Your task to perform on an android device: open app "Pluto TV - Live TV and Movies" (install if not already installed) and go to login screen Image 0: 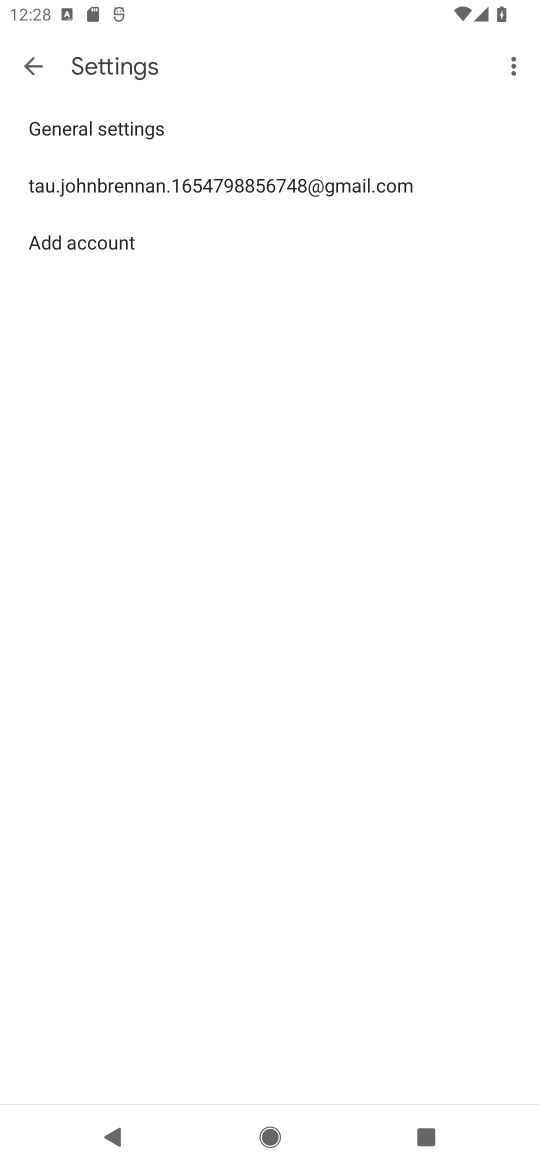
Step 0: press home button
Your task to perform on an android device: open app "Pluto TV - Live TV and Movies" (install if not already installed) and go to login screen Image 1: 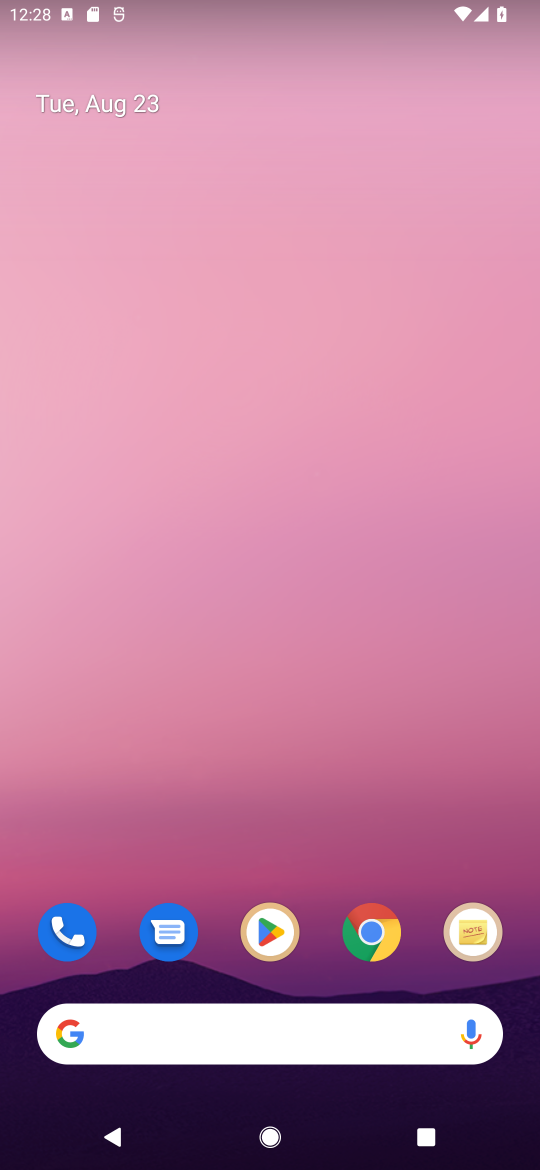
Step 1: click (270, 937)
Your task to perform on an android device: open app "Pluto TV - Live TV and Movies" (install if not already installed) and go to login screen Image 2: 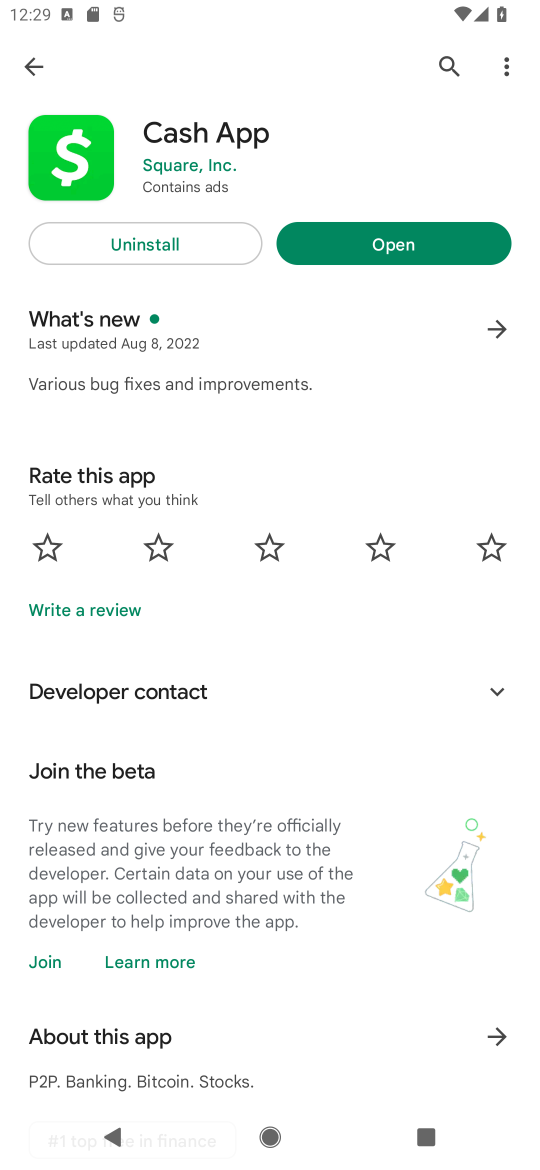
Step 2: click (436, 43)
Your task to perform on an android device: open app "Pluto TV - Live TV and Movies" (install if not already installed) and go to login screen Image 3: 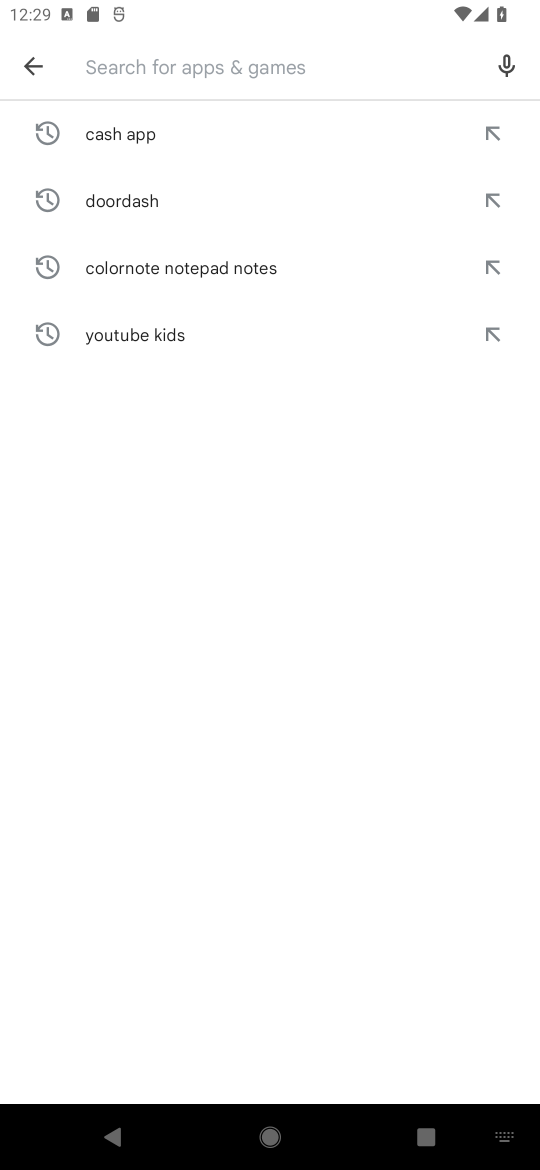
Step 3: click (157, 68)
Your task to perform on an android device: open app "Pluto TV - Live TV and Movies" (install if not already installed) and go to login screen Image 4: 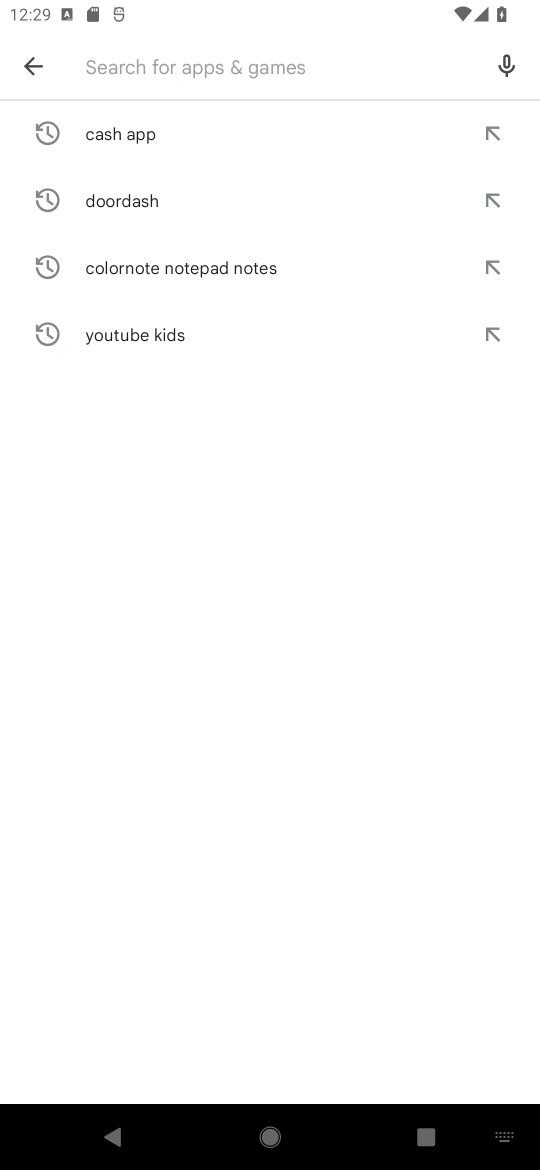
Step 4: type "Pluto TV"
Your task to perform on an android device: open app "Pluto TV - Live TV and Movies" (install if not already installed) and go to login screen Image 5: 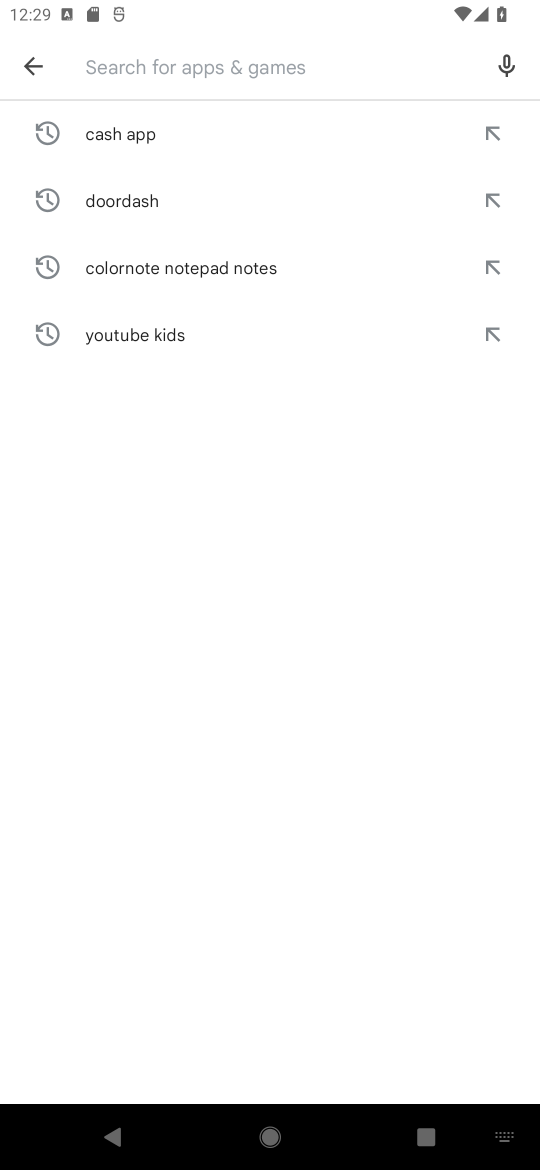
Step 5: click (395, 770)
Your task to perform on an android device: open app "Pluto TV - Live TV and Movies" (install if not already installed) and go to login screen Image 6: 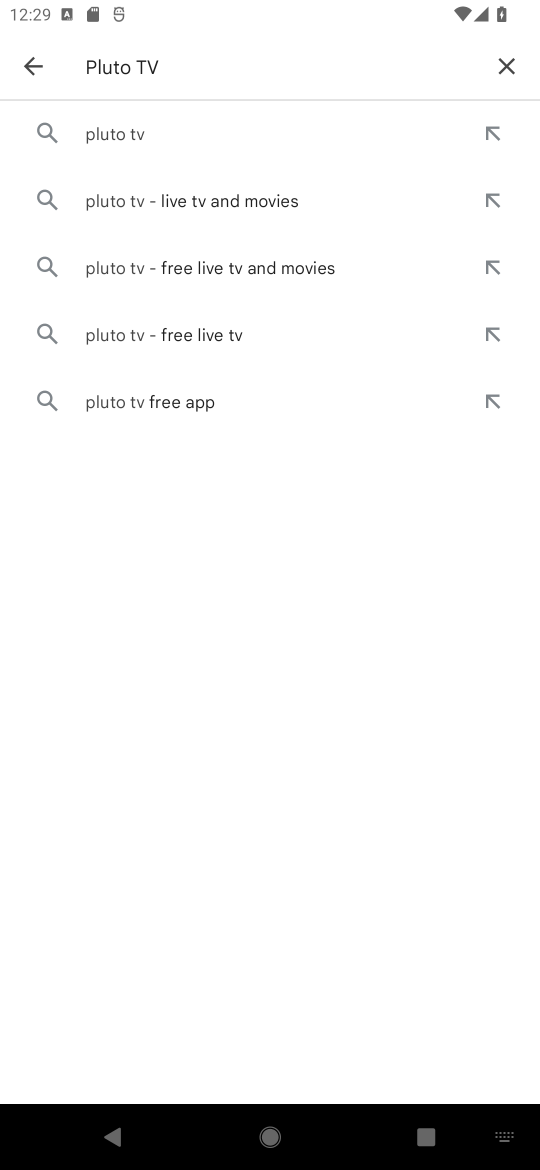
Step 6: click (119, 123)
Your task to perform on an android device: open app "Pluto TV - Live TV and Movies" (install if not already installed) and go to login screen Image 7: 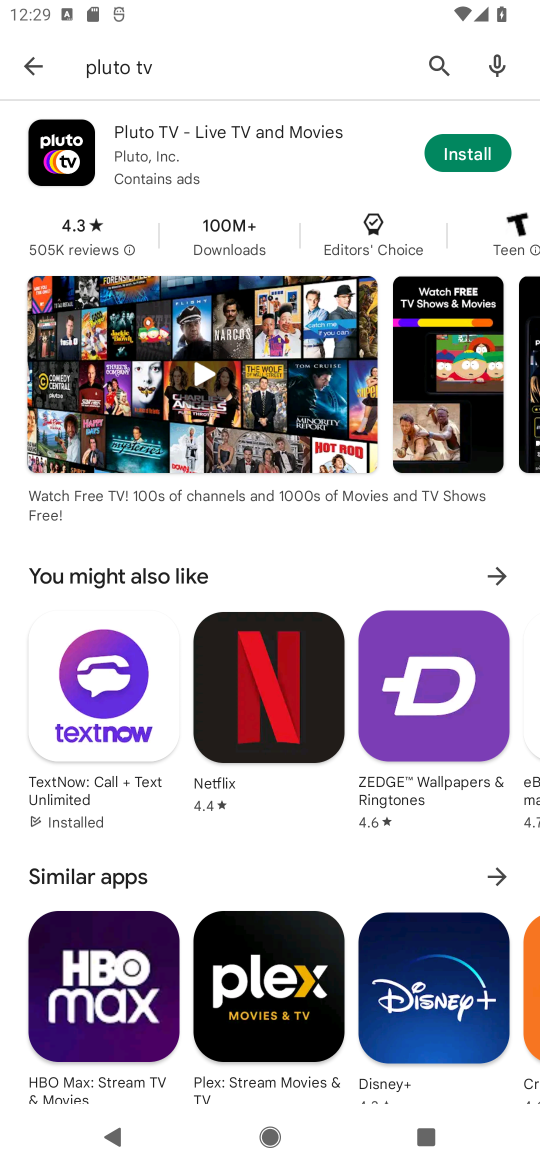
Step 7: click (472, 156)
Your task to perform on an android device: open app "Pluto TV - Live TV and Movies" (install if not already installed) and go to login screen Image 8: 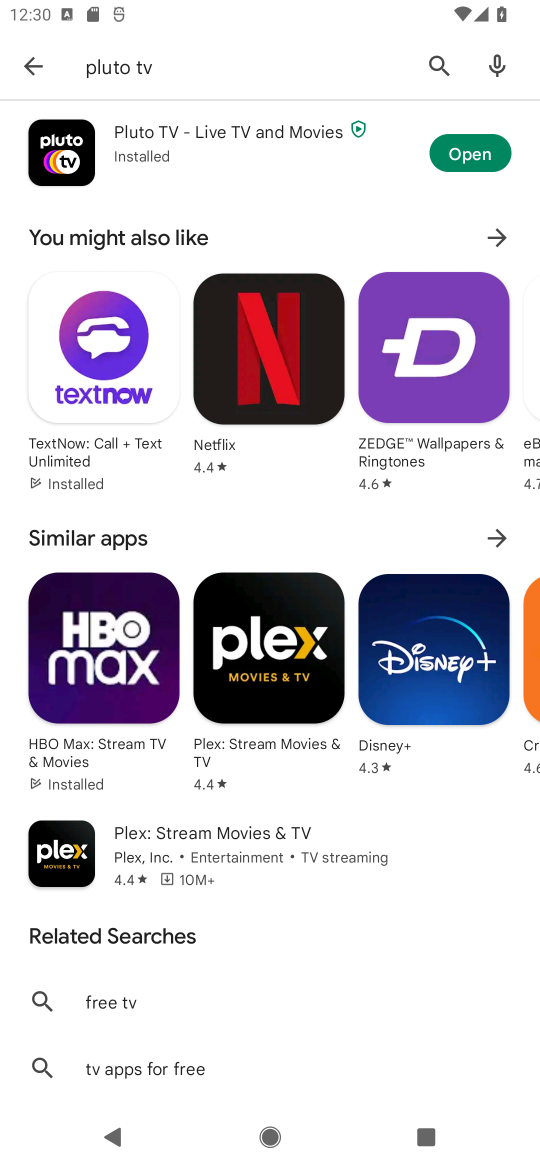
Step 8: click (489, 156)
Your task to perform on an android device: open app "Pluto TV - Live TV and Movies" (install if not already installed) and go to login screen Image 9: 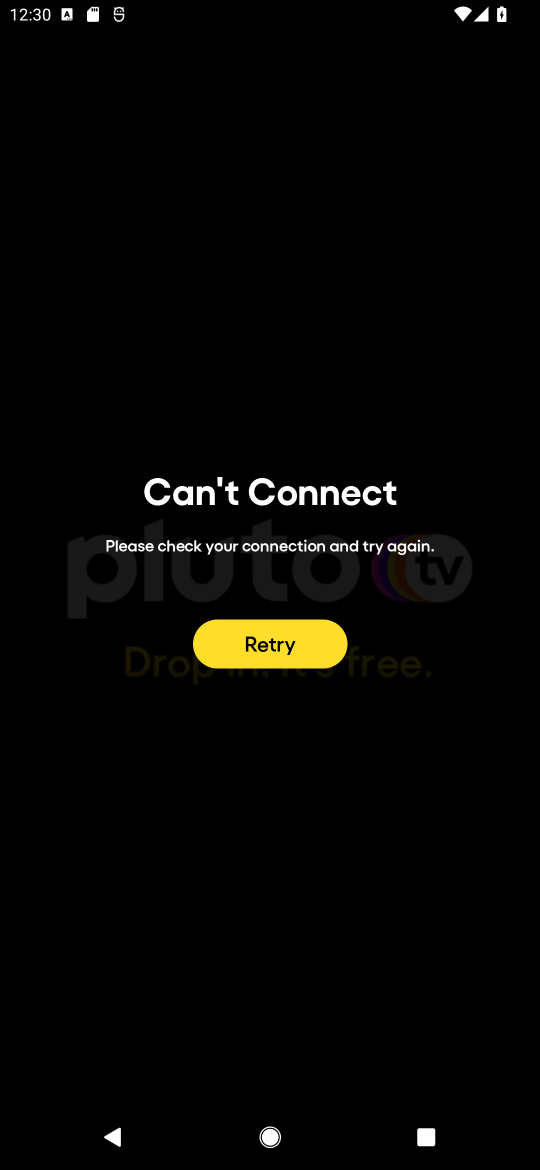
Step 9: task complete